Your task to perform on an android device: Add "logitech g pro" to the cart on target Image 0: 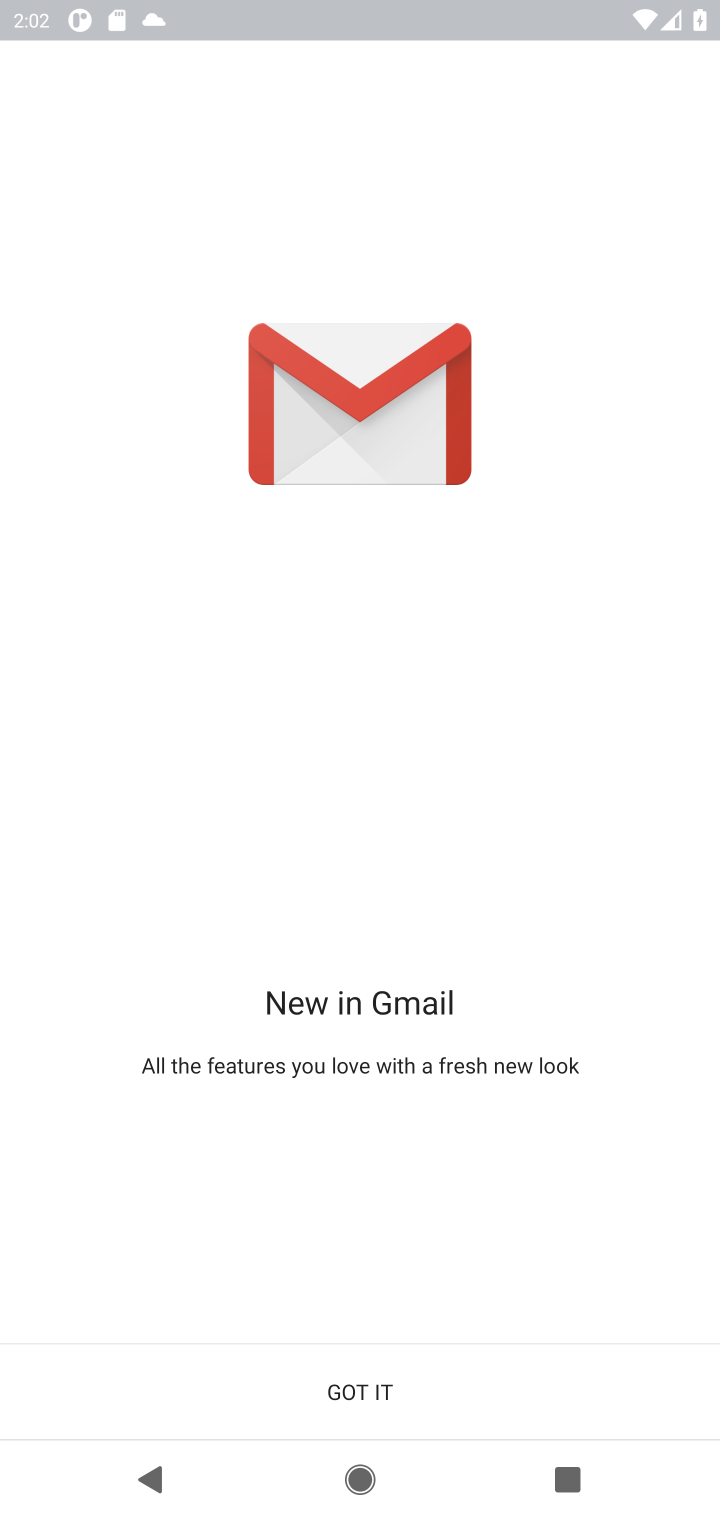
Step 0: press home button
Your task to perform on an android device: Add "logitech g pro" to the cart on target Image 1: 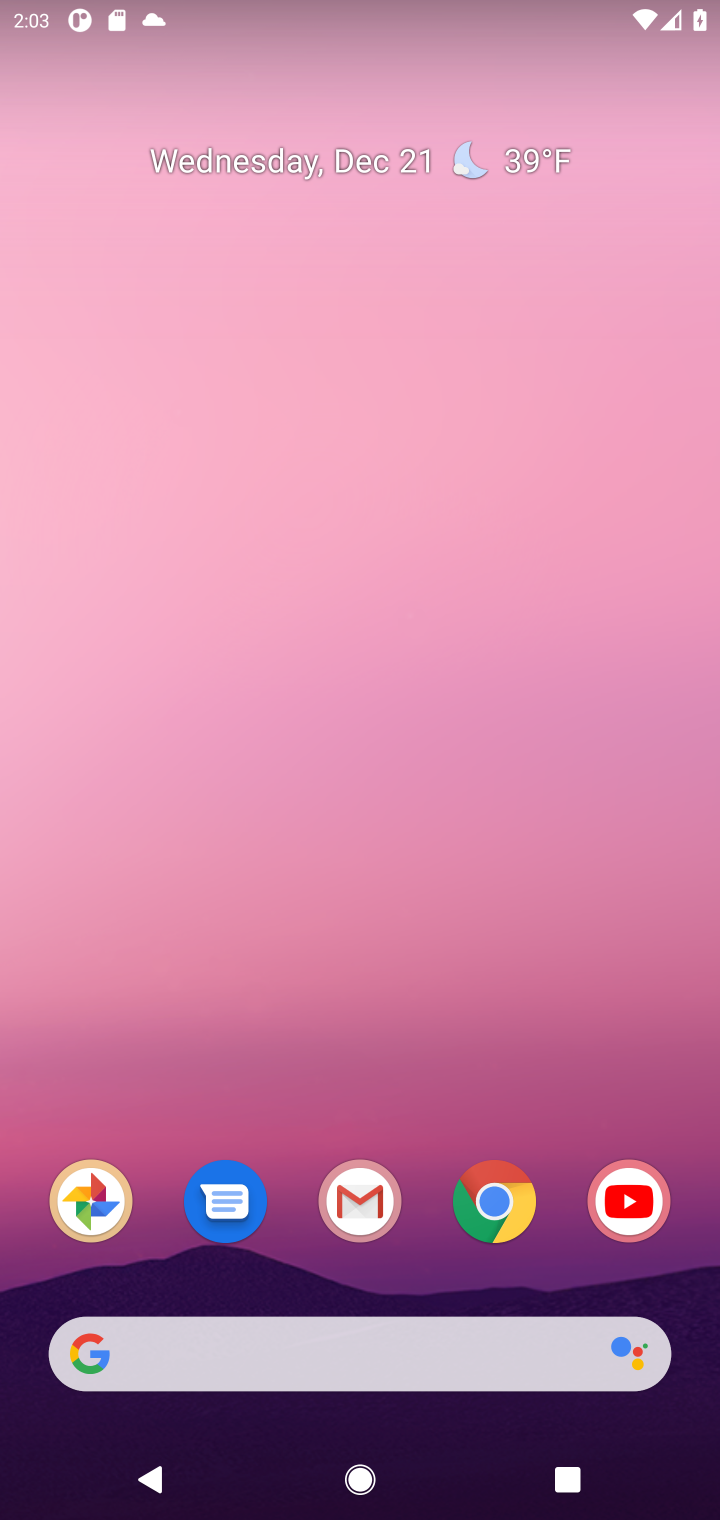
Step 1: click (500, 1199)
Your task to perform on an android device: Add "logitech g pro" to the cart on target Image 2: 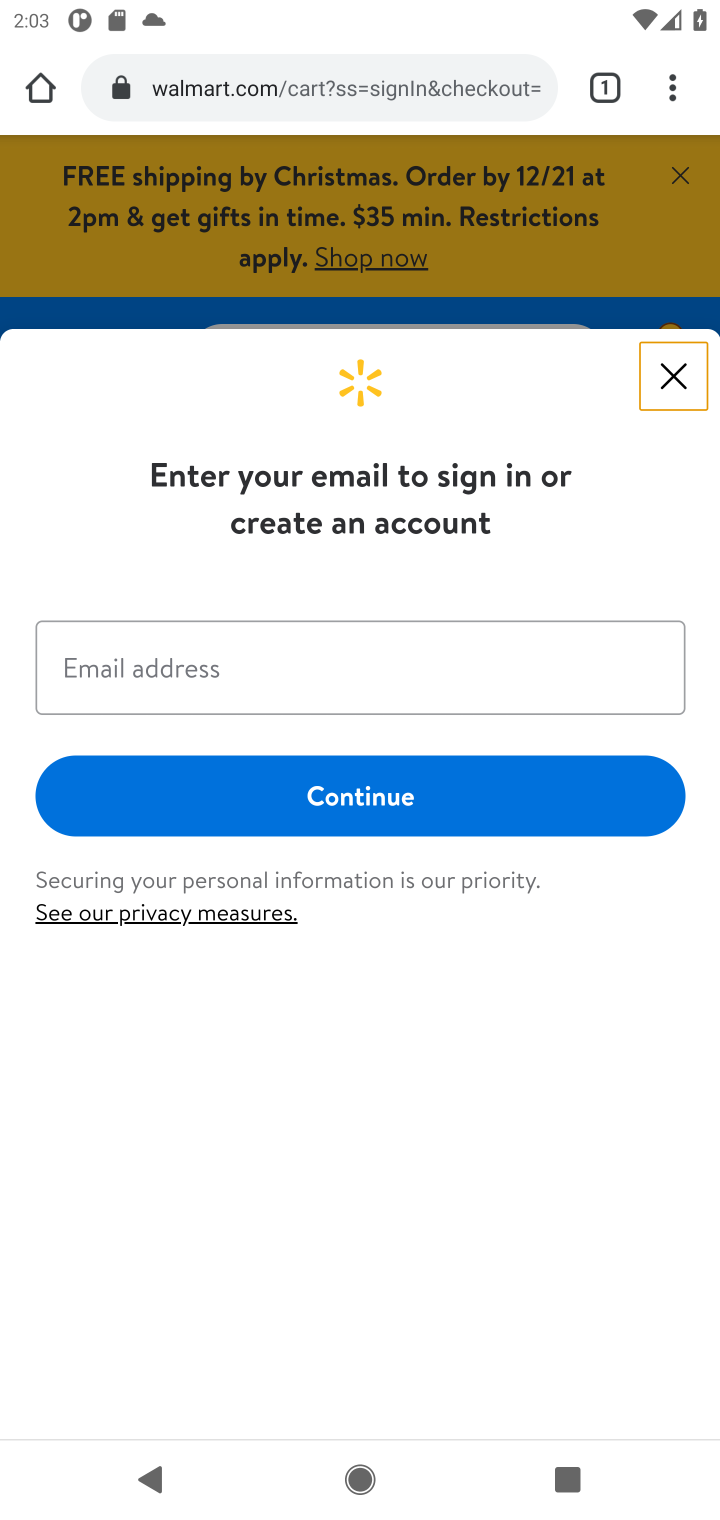
Step 2: click (265, 86)
Your task to perform on an android device: Add "logitech g pro" to the cart on target Image 3: 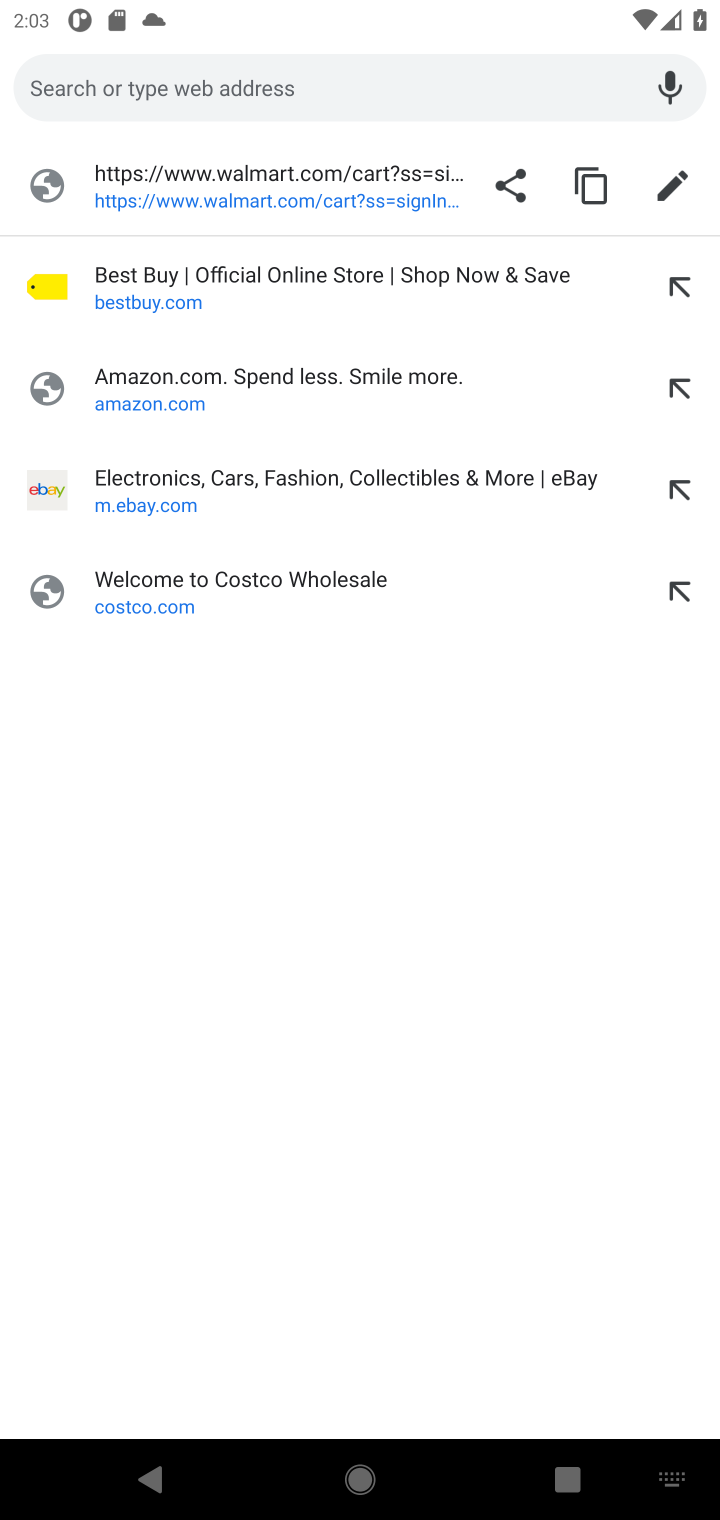
Step 3: type "target.com"
Your task to perform on an android device: Add "logitech g pro" to the cart on target Image 4: 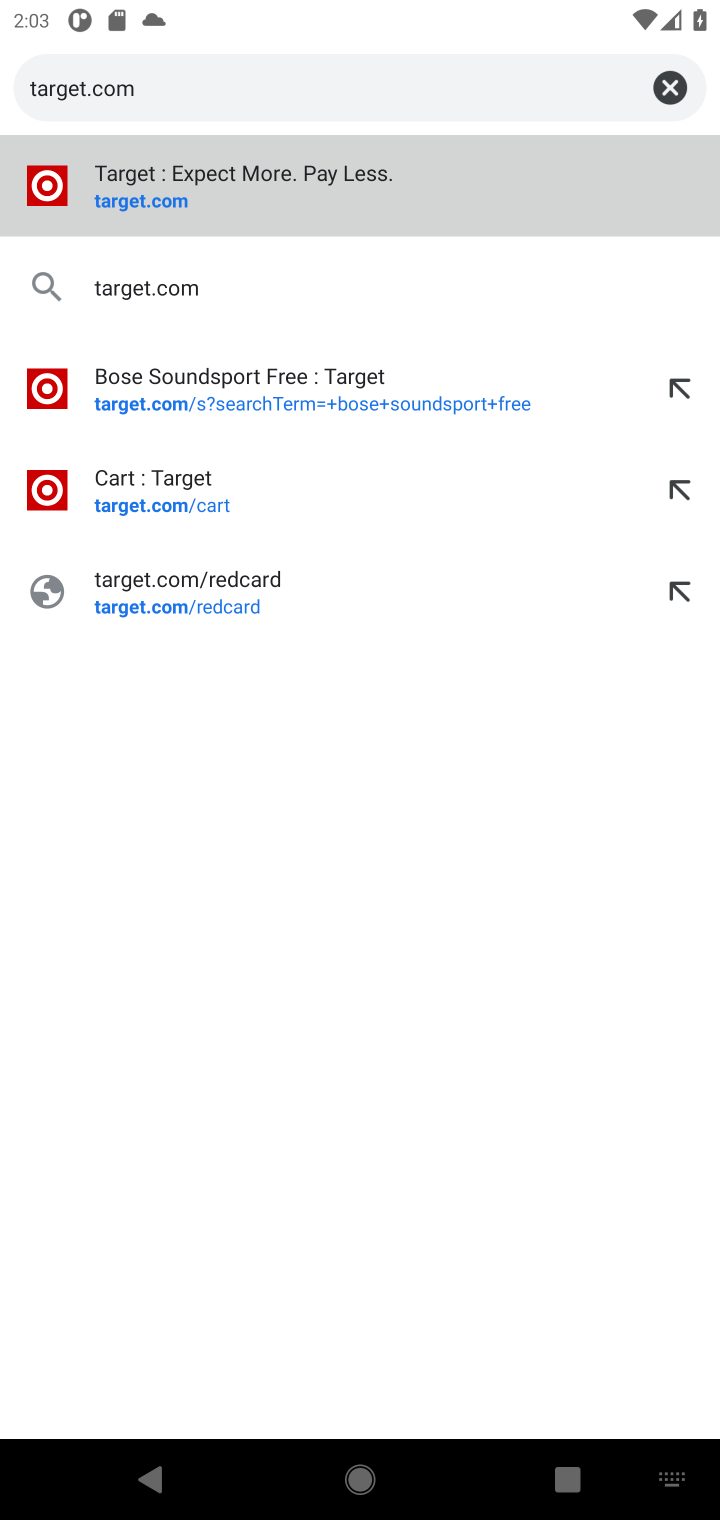
Step 4: click (150, 199)
Your task to perform on an android device: Add "logitech g pro" to the cart on target Image 5: 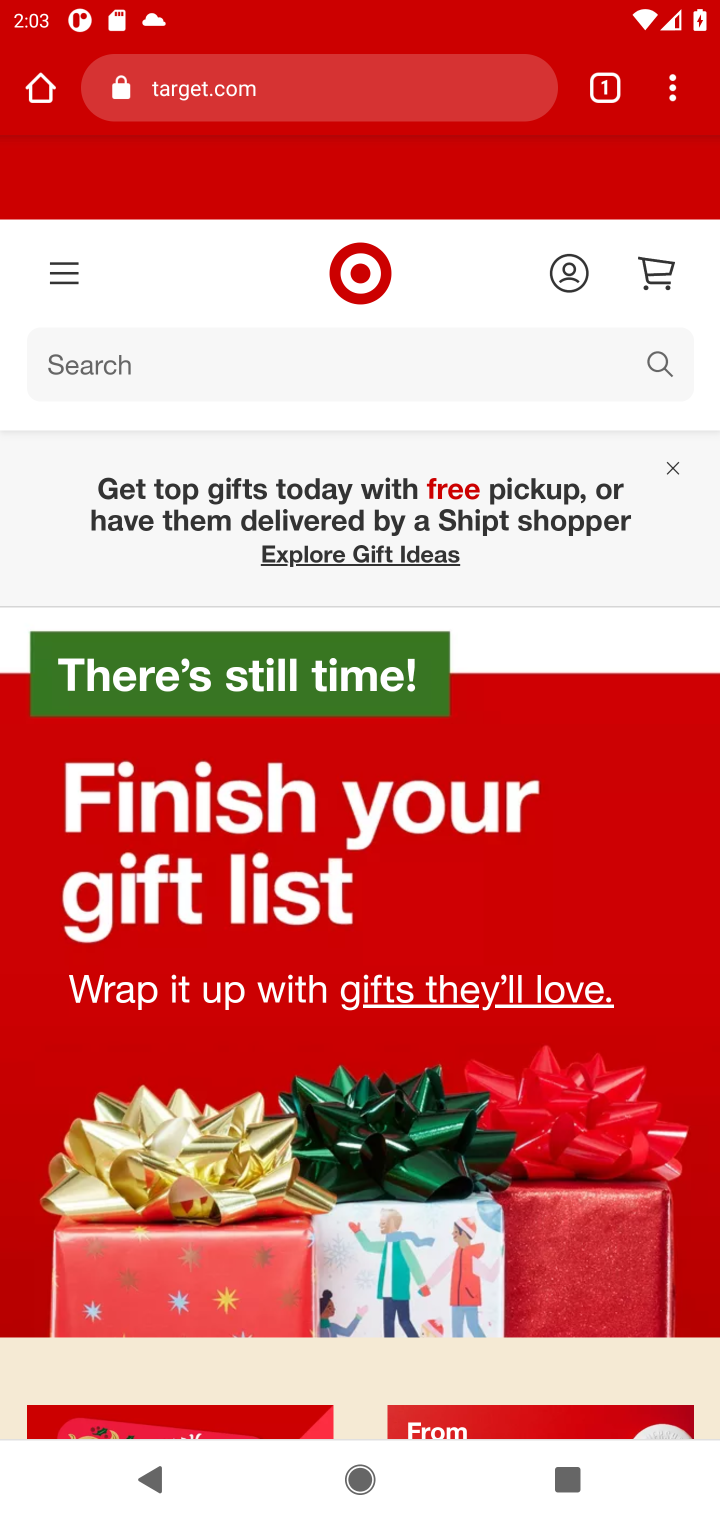
Step 5: click (107, 372)
Your task to perform on an android device: Add "logitech g pro" to the cart on target Image 6: 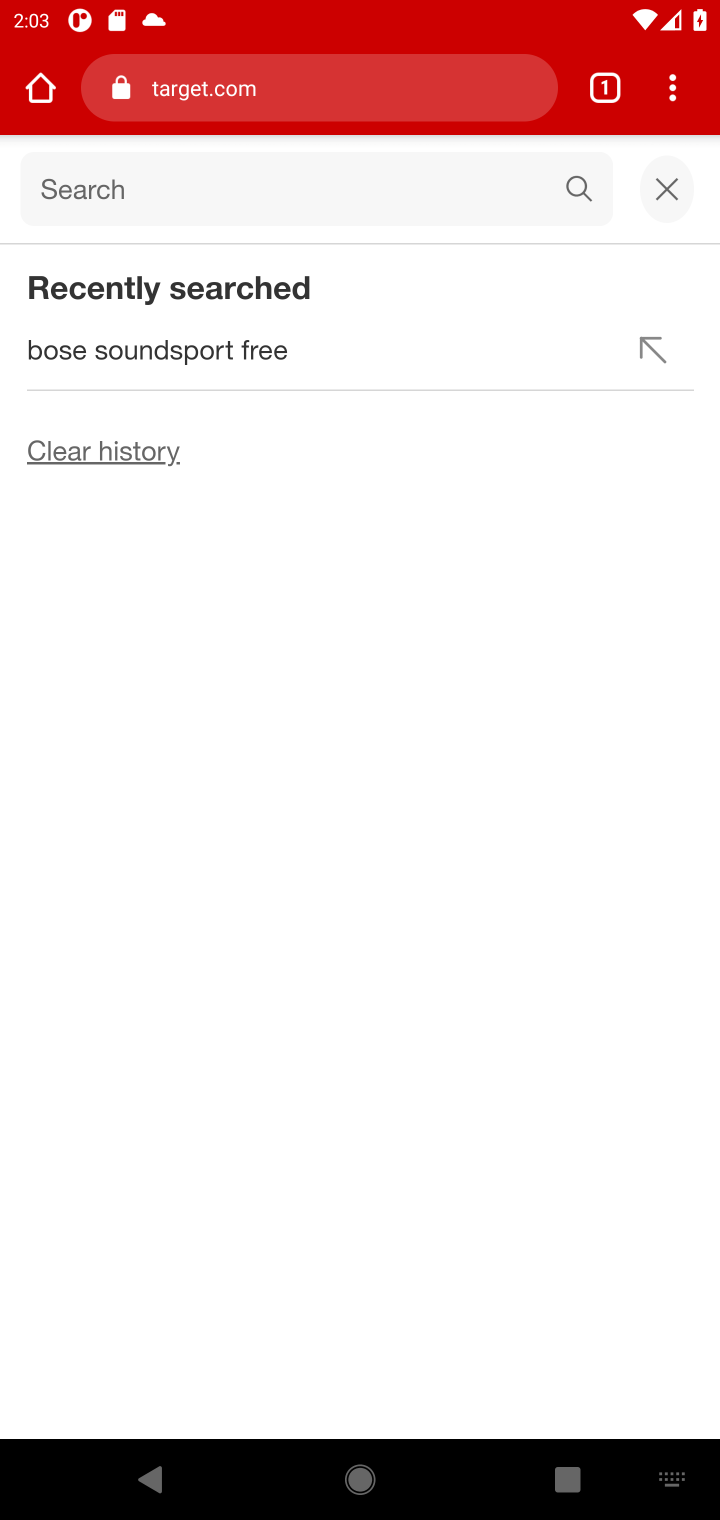
Step 6: type "logitech g pro"
Your task to perform on an android device: Add "logitech g pro" to the cart on target Image 7: 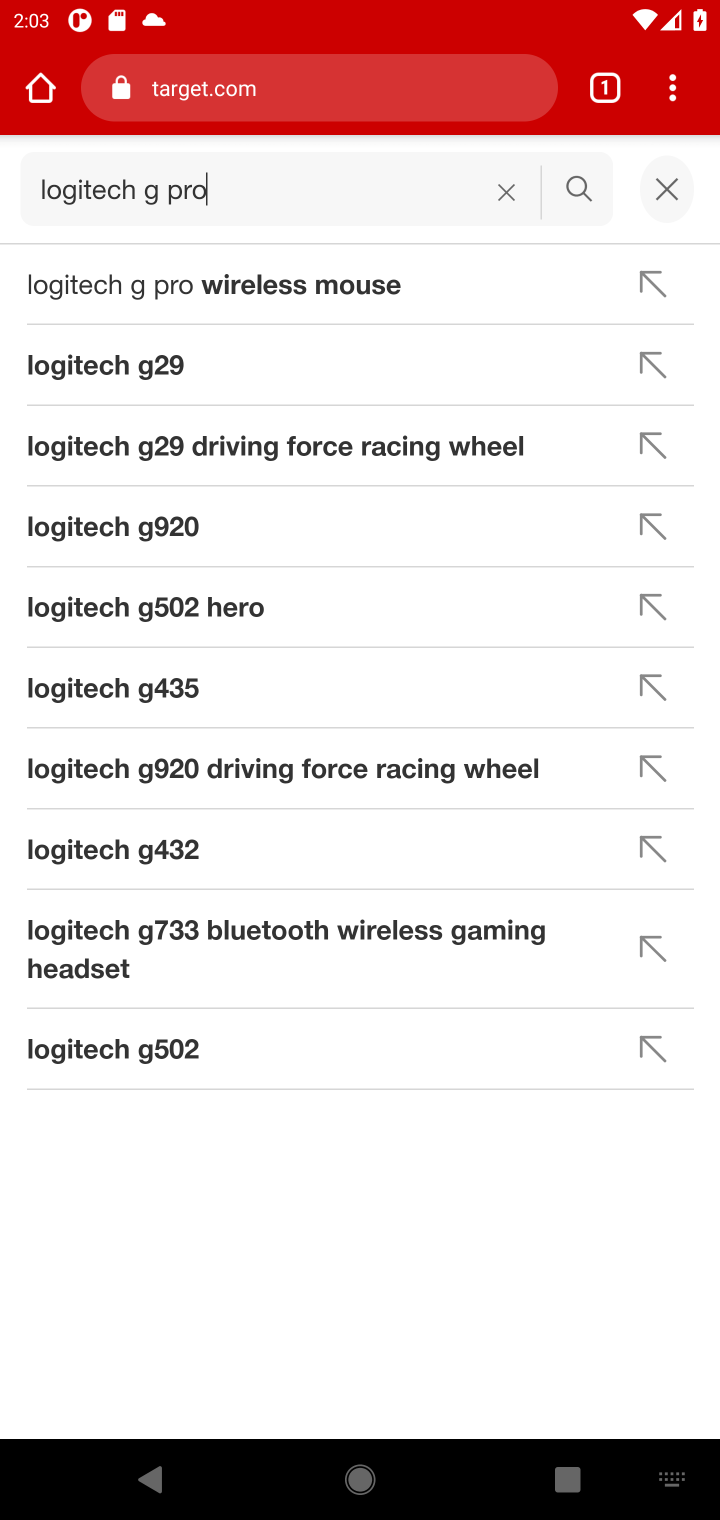
Step 7: click (586, 193)
Your task to perform on an android device: Add "logitech g pro" to the cart on target Image 8: 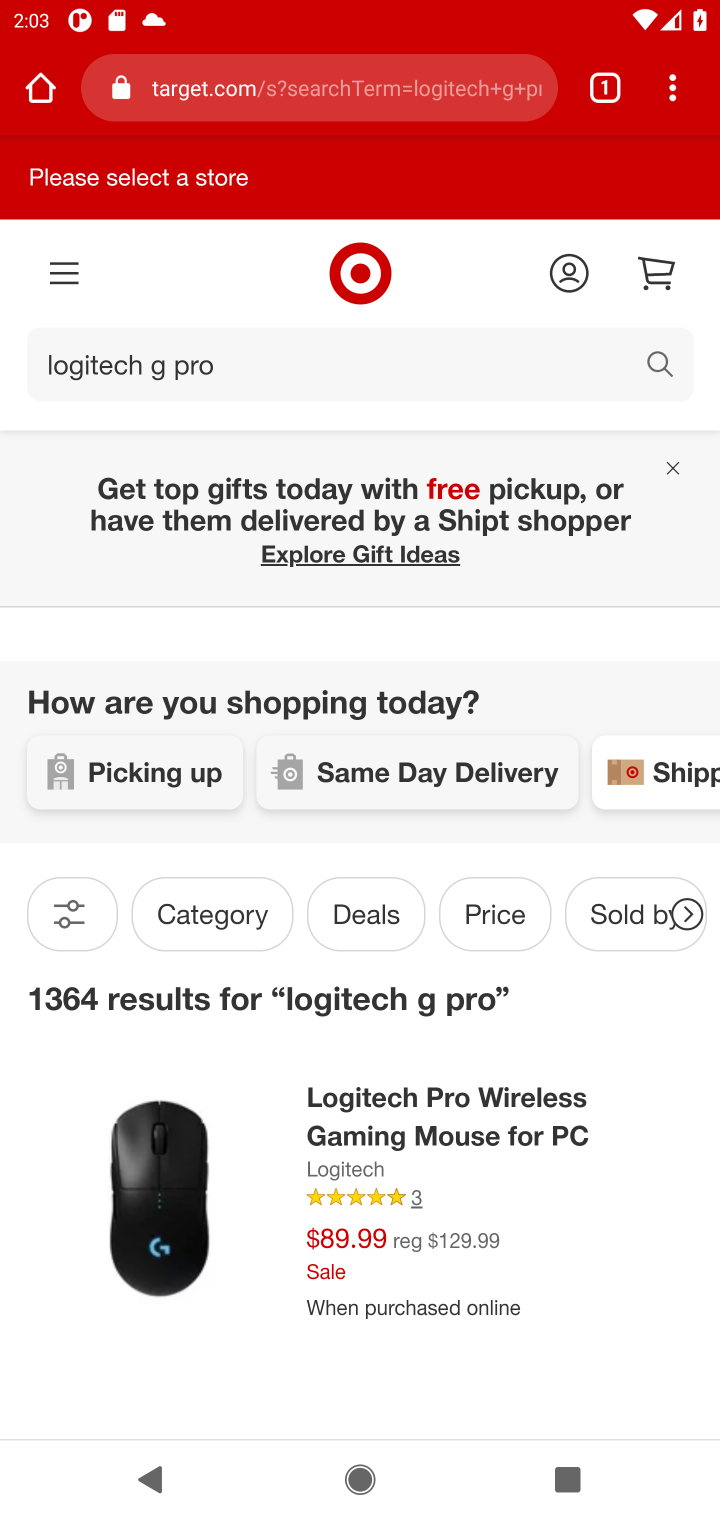
Step 8: task complete